Your task to perform on an android device: What's the weather today? Image 0: 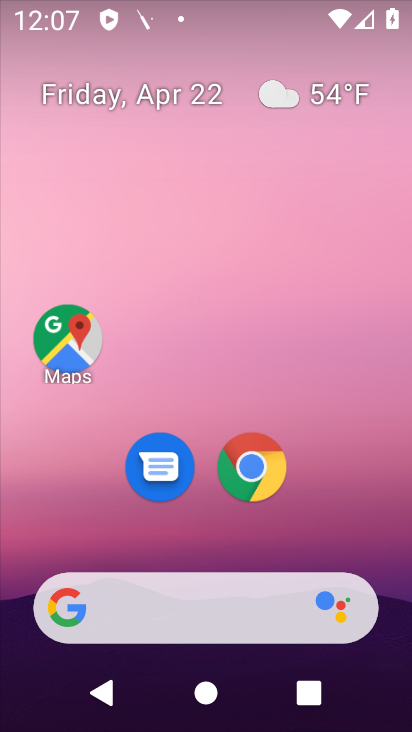
Step 0: click (320, 92)
Your task to perform on an android device: What's the weather today? Image 1: 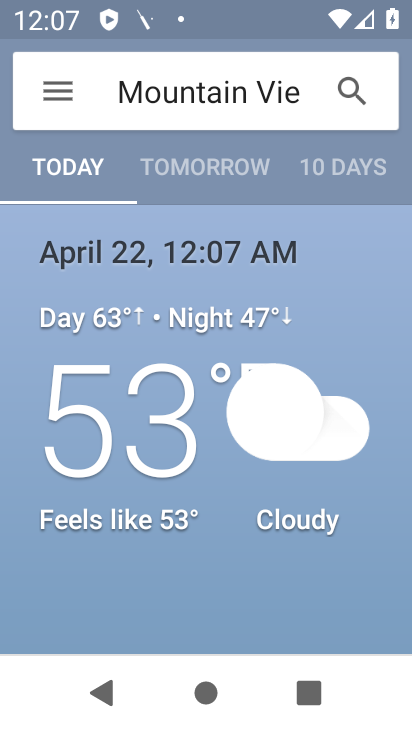
Step 1: task complete